Your task to perform on an android device: Search for "razer deathadder" on target, select the first entry, and add it to the cart. Image 0: 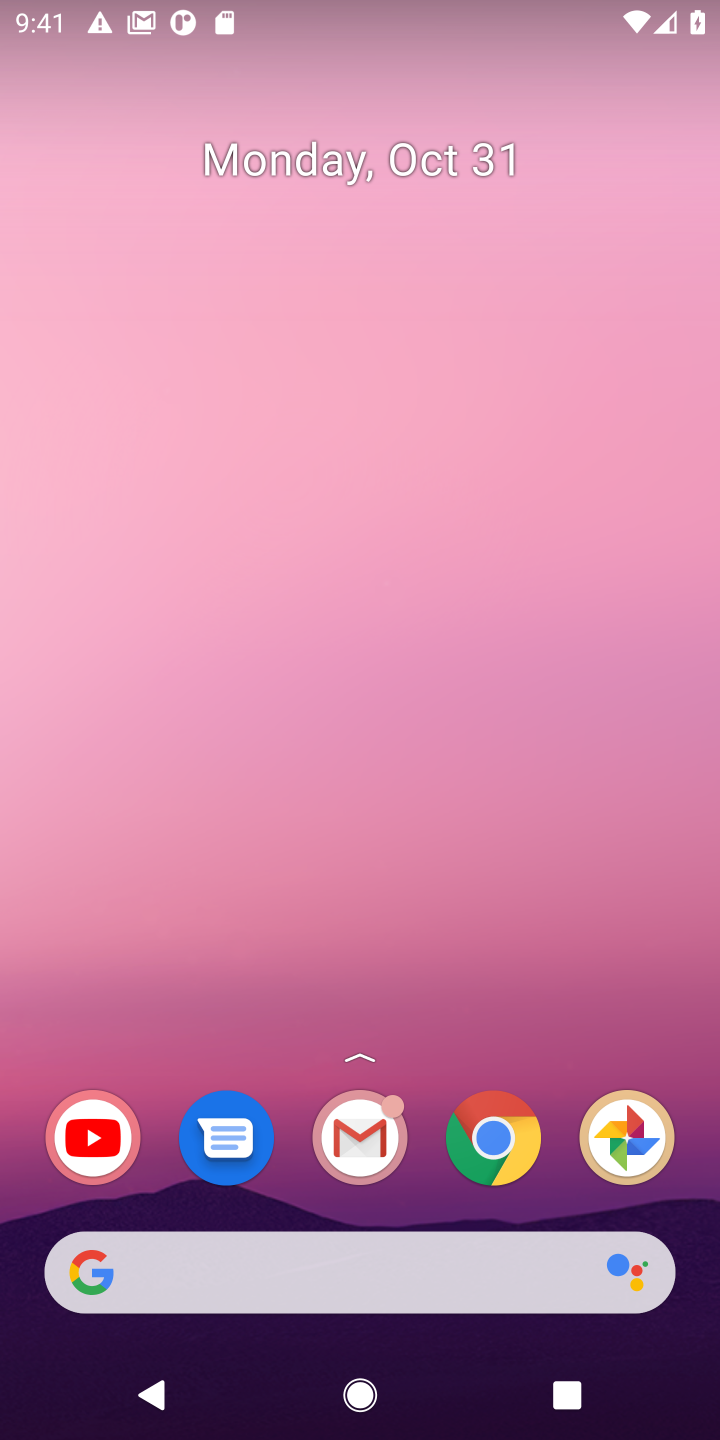
Step 0: drag from (456, 1351) to (346, 189)
Your task to perform on an android device: Search for "razer deathadder" on target, select the first entry, and add it to the cart. Image 1: 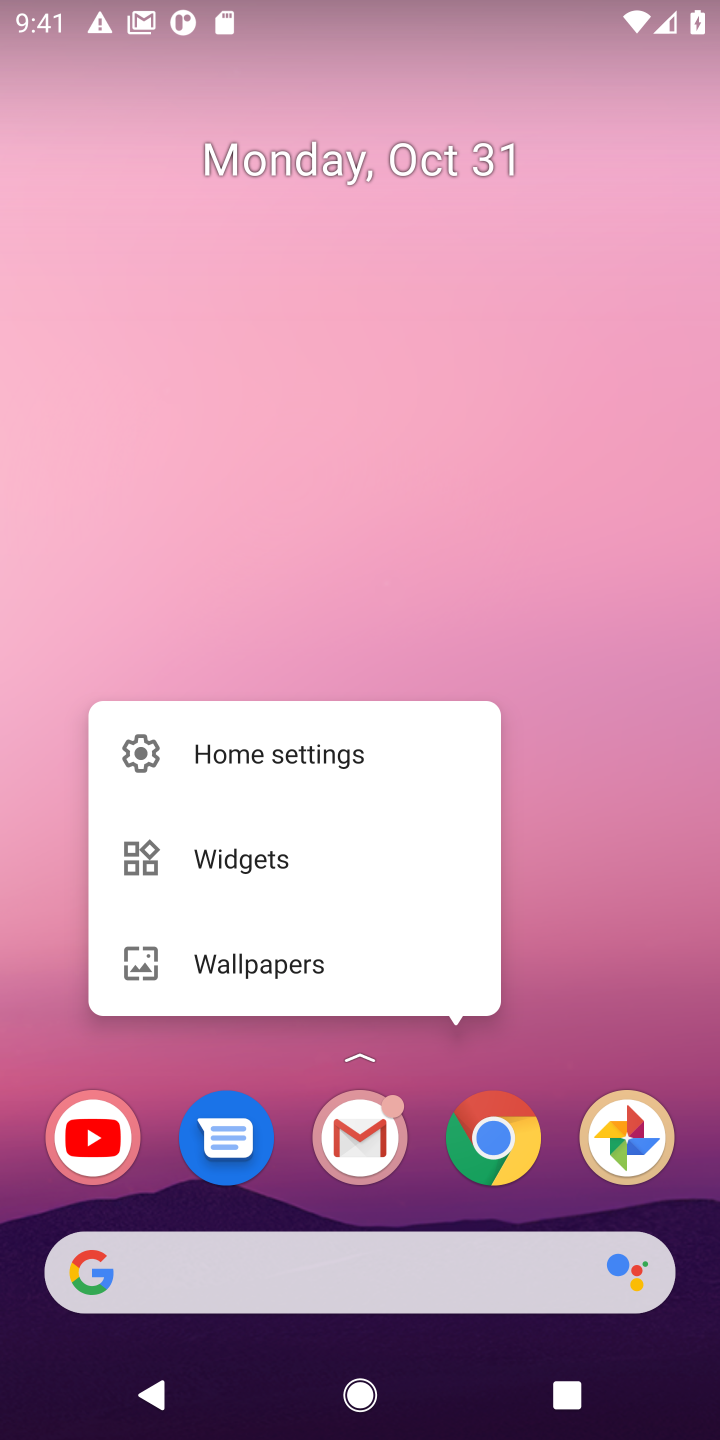
Step 1: click (452, 1347)
Your task to perform on an android device: Search for "razer deathadder" on target, select the first entry, and add it to the cart. Image 2: 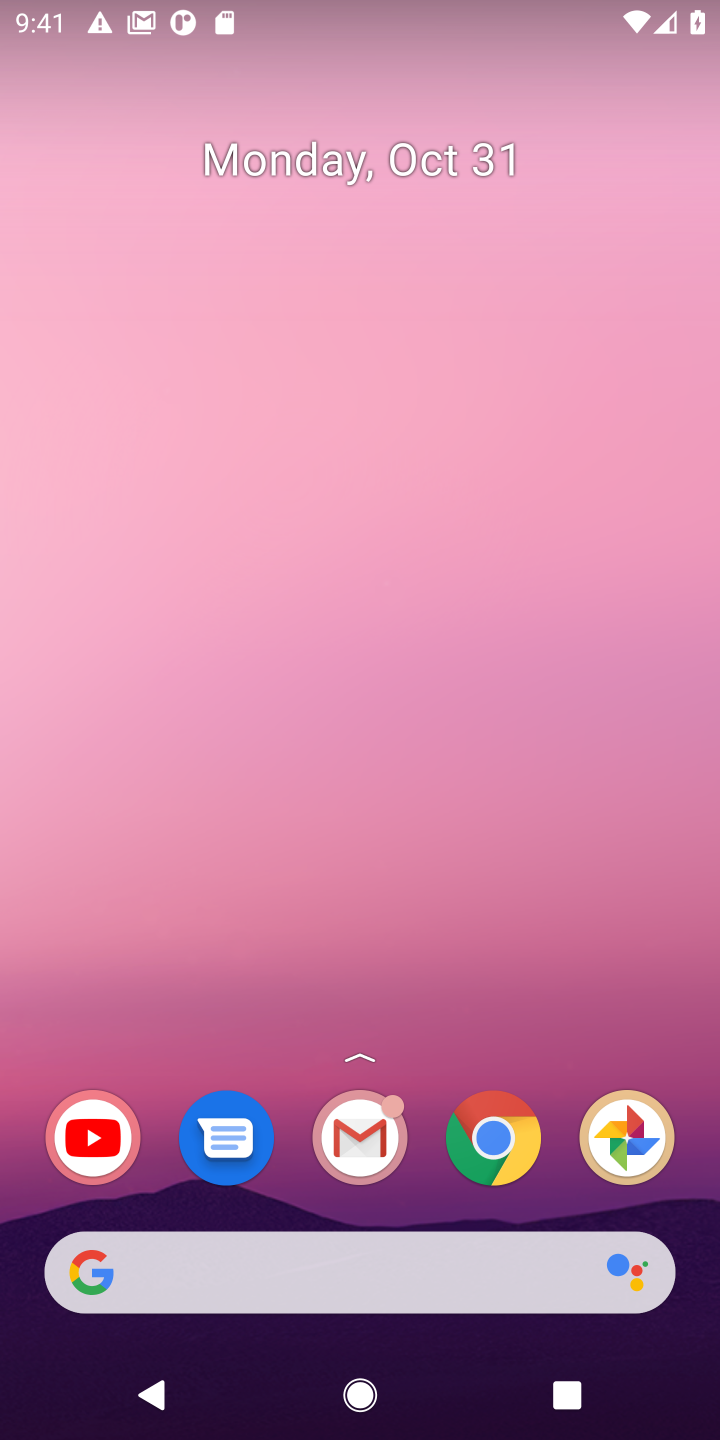
Step 2: drag from (449, 1355) to (607, 208)
Your task to perform on an android device: Search for "razer deathadder" on target, select the first entry, and add it to the cart. Image 3: 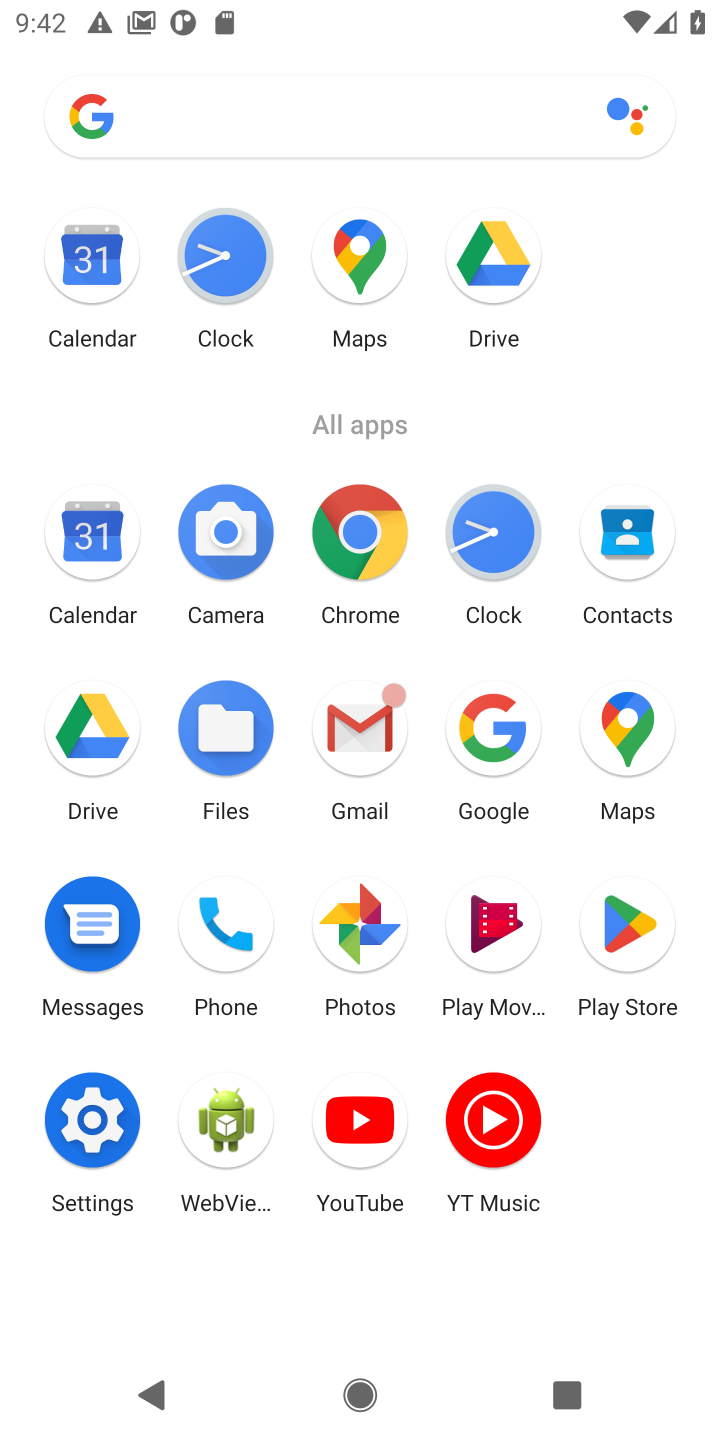
Step 3: click (364, 519)
Your task to perform on an android device: Search for "razer deathadder" on target, select the first entry, and add it to the cart. Image 4: 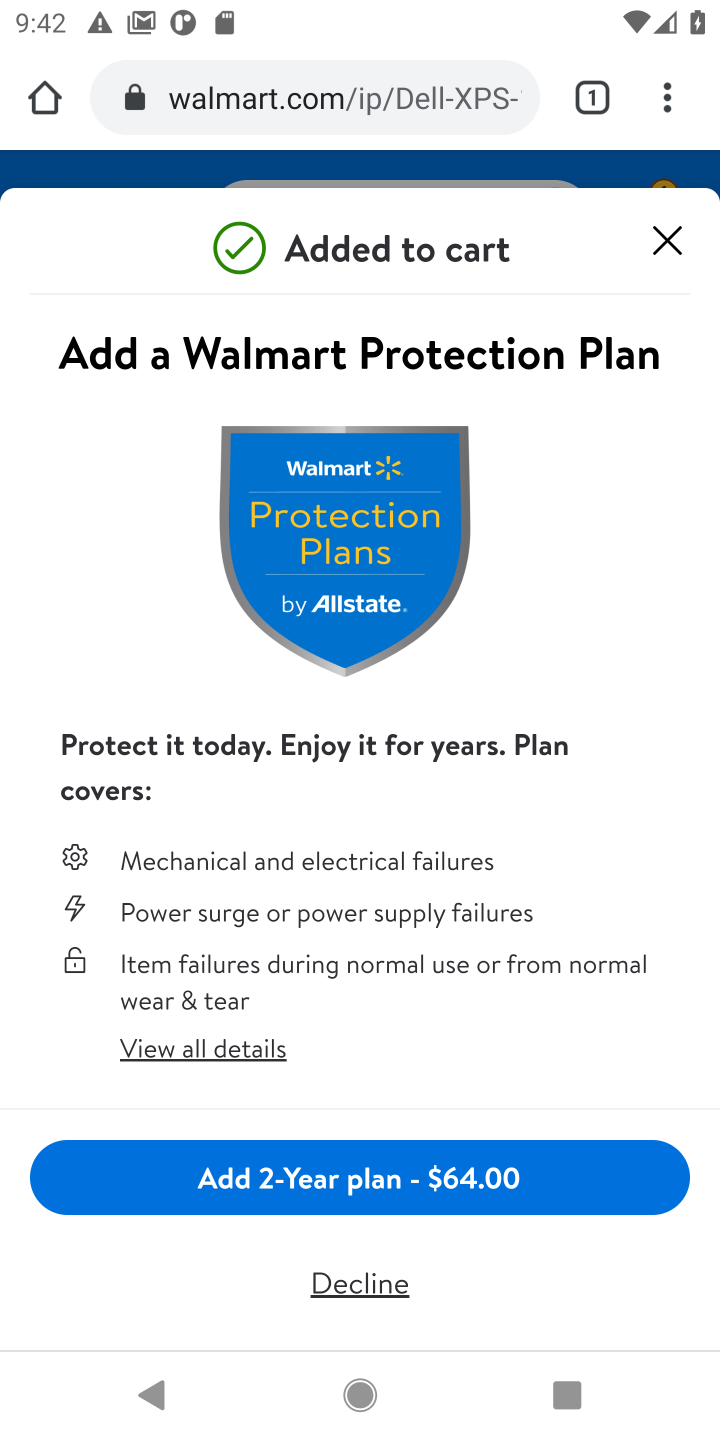
Step 4: click (324, 101)
Your task to perform on an android device: Search for "razer deathadder" on target, select the first entry, and add it to the cart. Image 5: 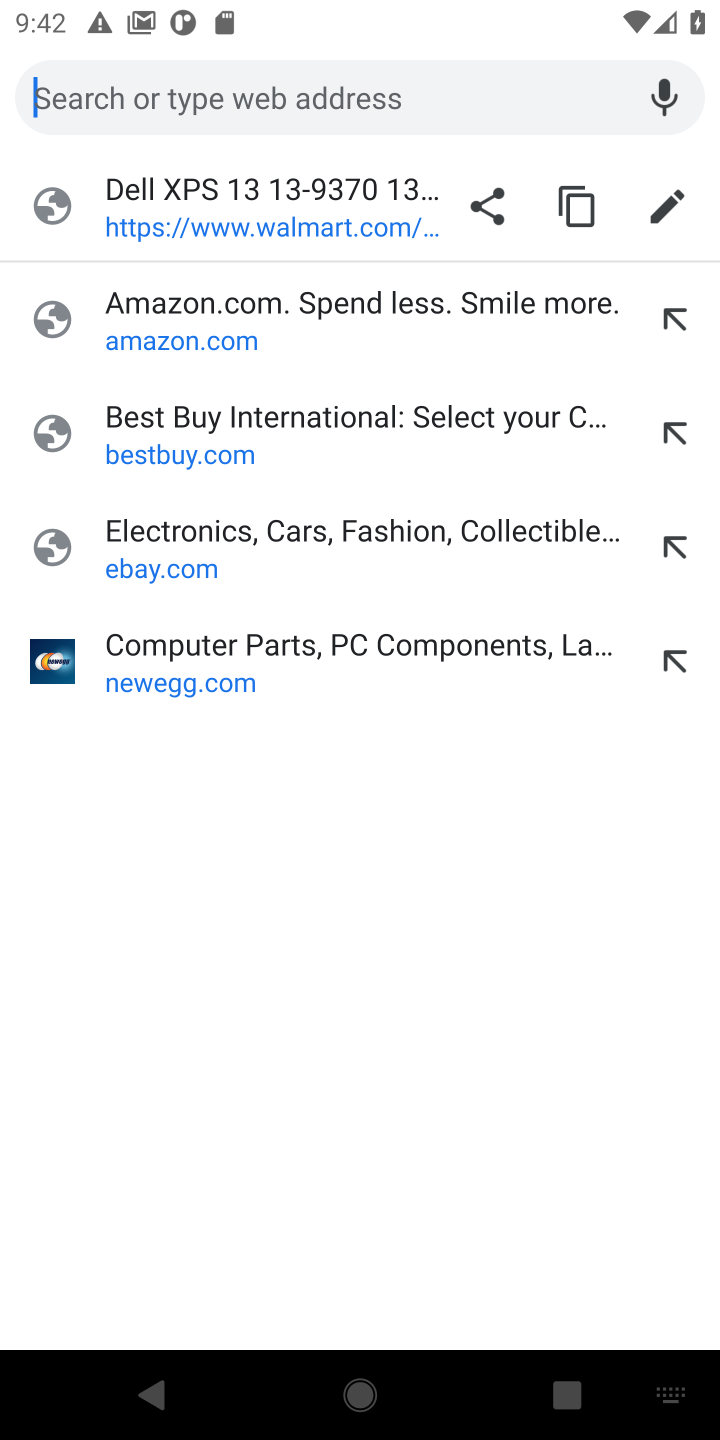
Step 5: type "target"
Your task to perform on an android device: Search for "razer deathadder" on target, select the first entry, and add it to the cart. Image 6: 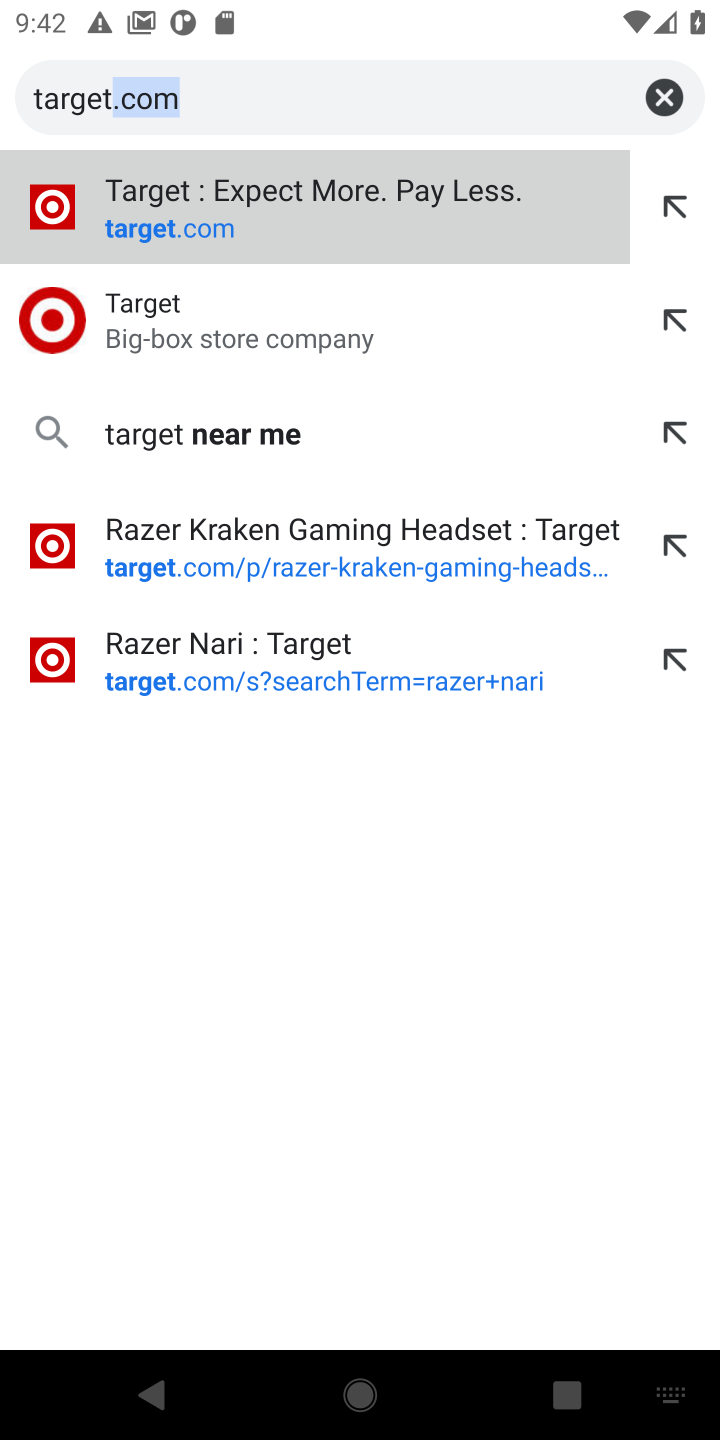
Step 6: click (163, 236)
Your task to perform on an android device: Search for "razer deathadder" on target, select the first entry, and add it to the cart. Image 7: 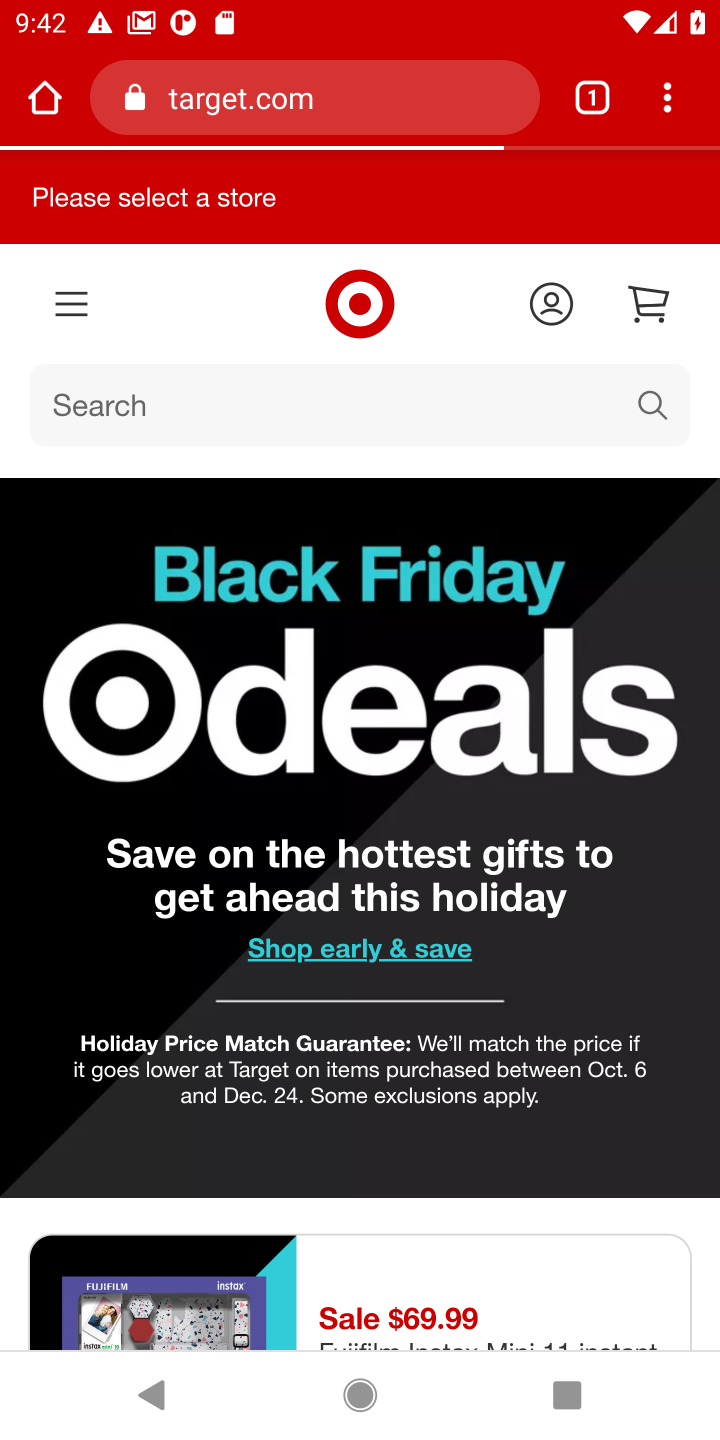
Step 7: click (306, 408)
Your task to perform on an android device: Search for "razer deathadder" on target, select the first entry, and add it to the cart. Image 8: 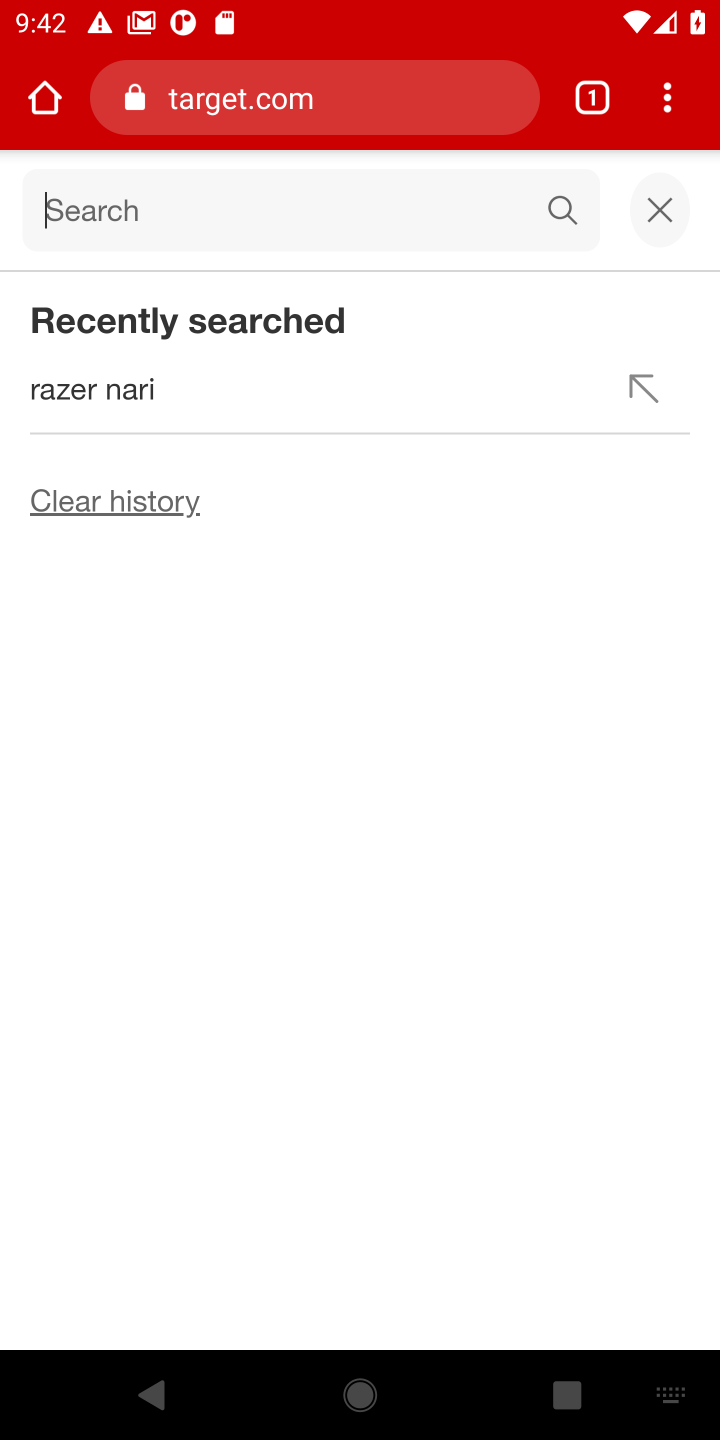
Step 8: type "razer deathadder"
Your task to perform on an android device: Search for "razer deathadder" on target, select the first entry, and add it to the cart. Image 9: 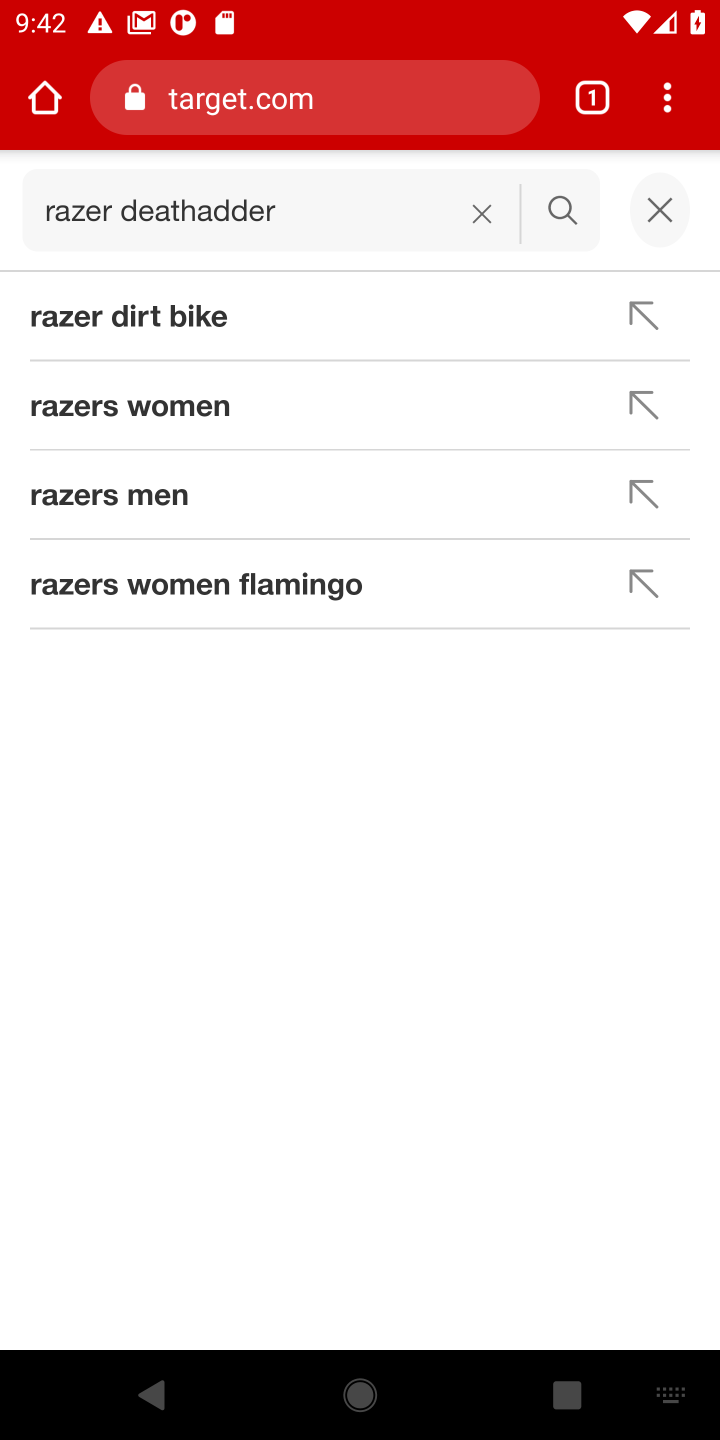
Step 9: click (567, 210)
Your task to perform on an android device: Search for "razer deathadder" on target, select the first entry, and add it to the cart. Image 10: 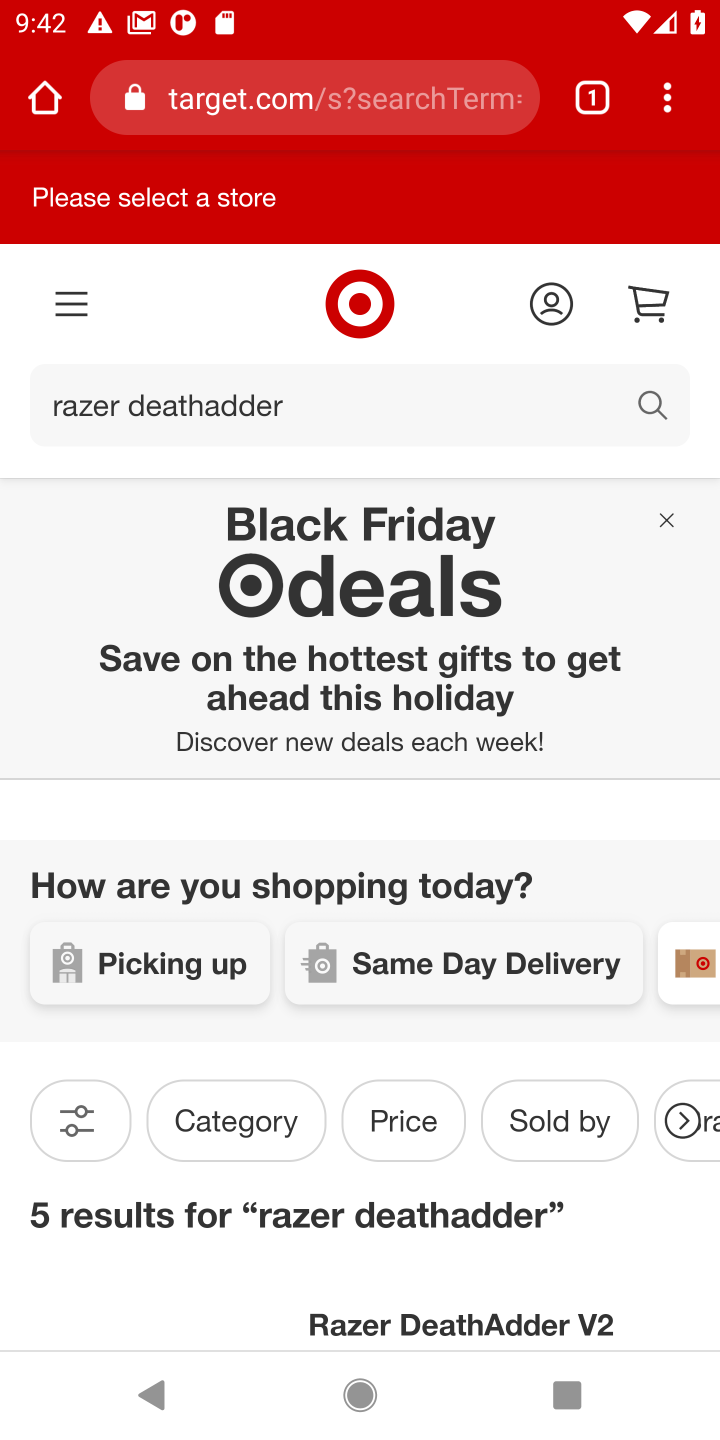
Step 10: drag from (398, 1160) to (423, 357)
Your task to perform on an android device: Search for "razer deathadder" on target, select the first entry, and add it to the cart. Image 11: 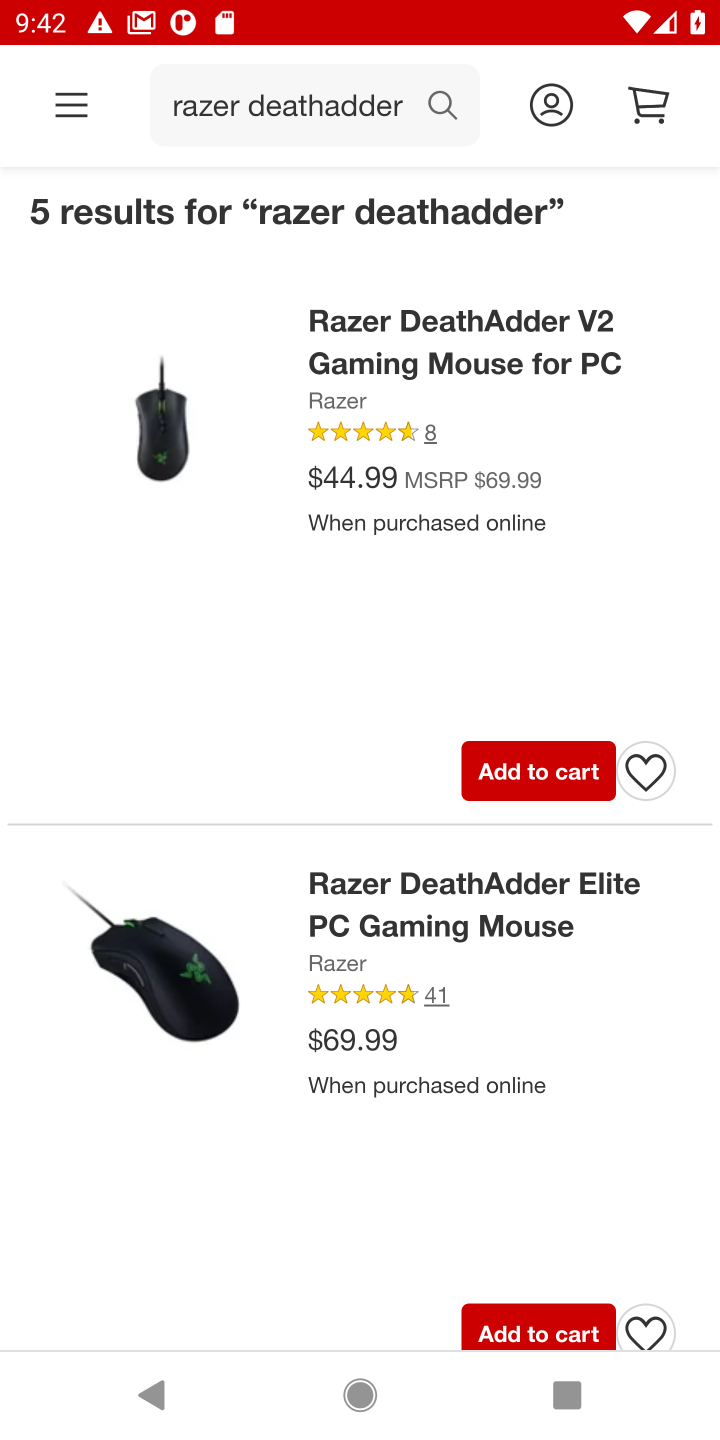
Step 11: click (295, 430)
Your task to perform on an android device: Search for "razer deathadder" on target, select the first entry, and add it to the cart. Image 12: 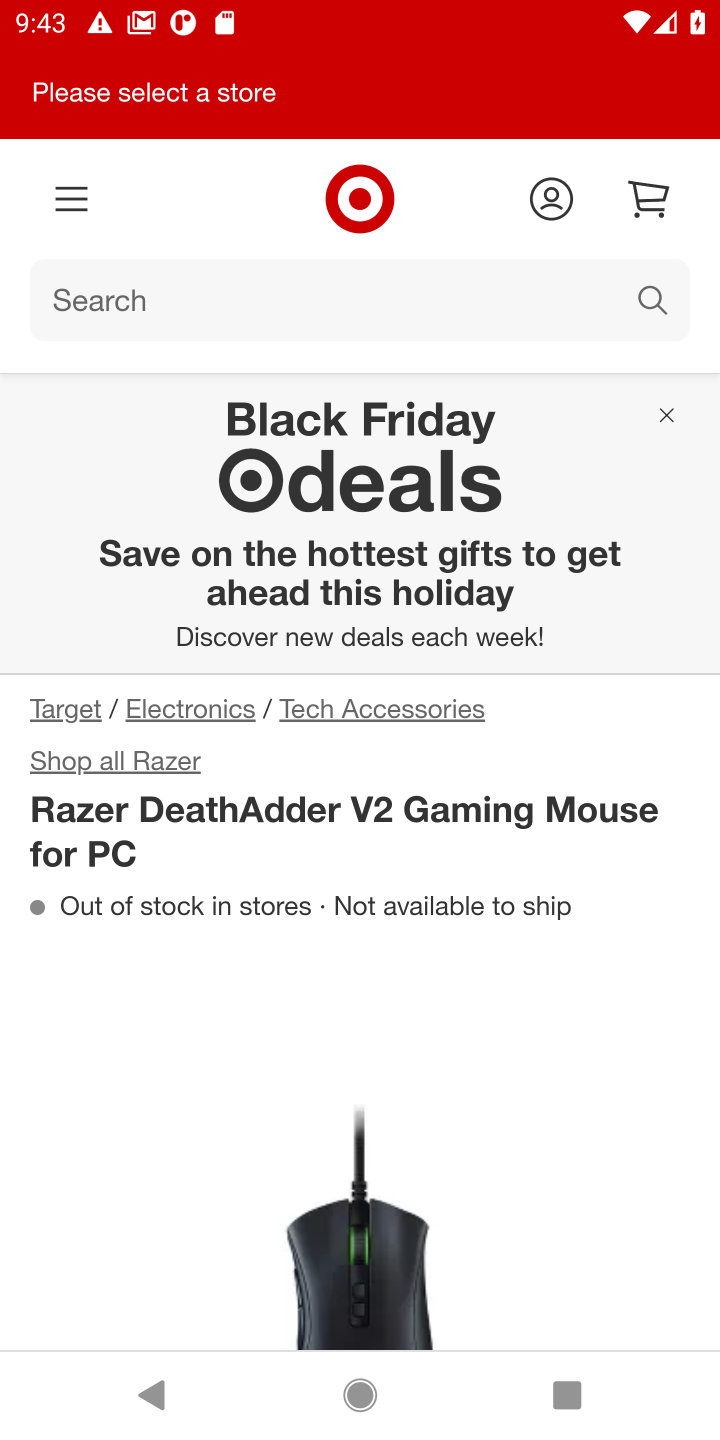
Step 12: drag from (478, 1030) to (506, 253)
Your task to perform on an android device: Search for "razer deathadder" on target, select the first entry, and add it to the cart. Image 13: 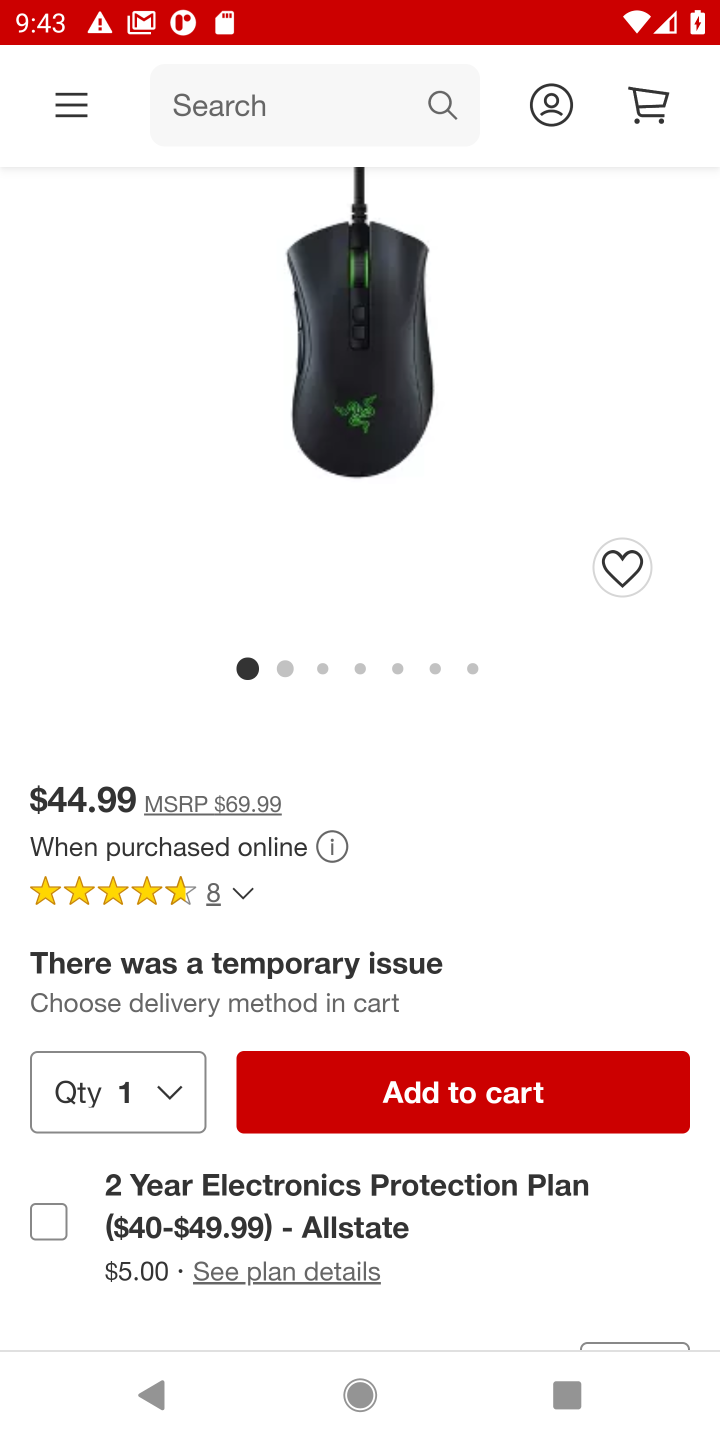
Step 13: click (466, 1076)
Your task to perform on an android device: Search for "razer deathadder" on target, select the first entry, and add it to the cart. Image 14: 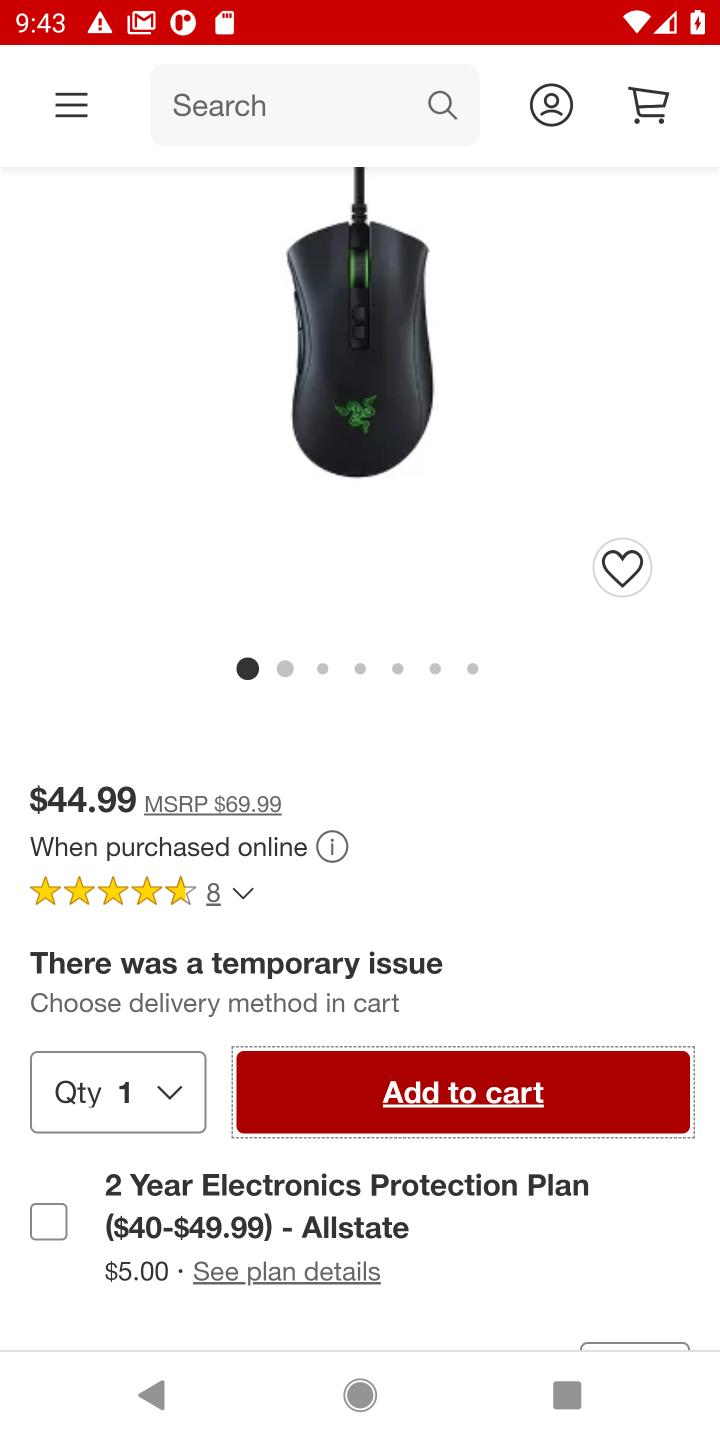
Step 14: click (476, 1098)
Your task to perform on an android device: Search for "razer deathadder" on target, select the first entry, and add it to the cart. Image 15: 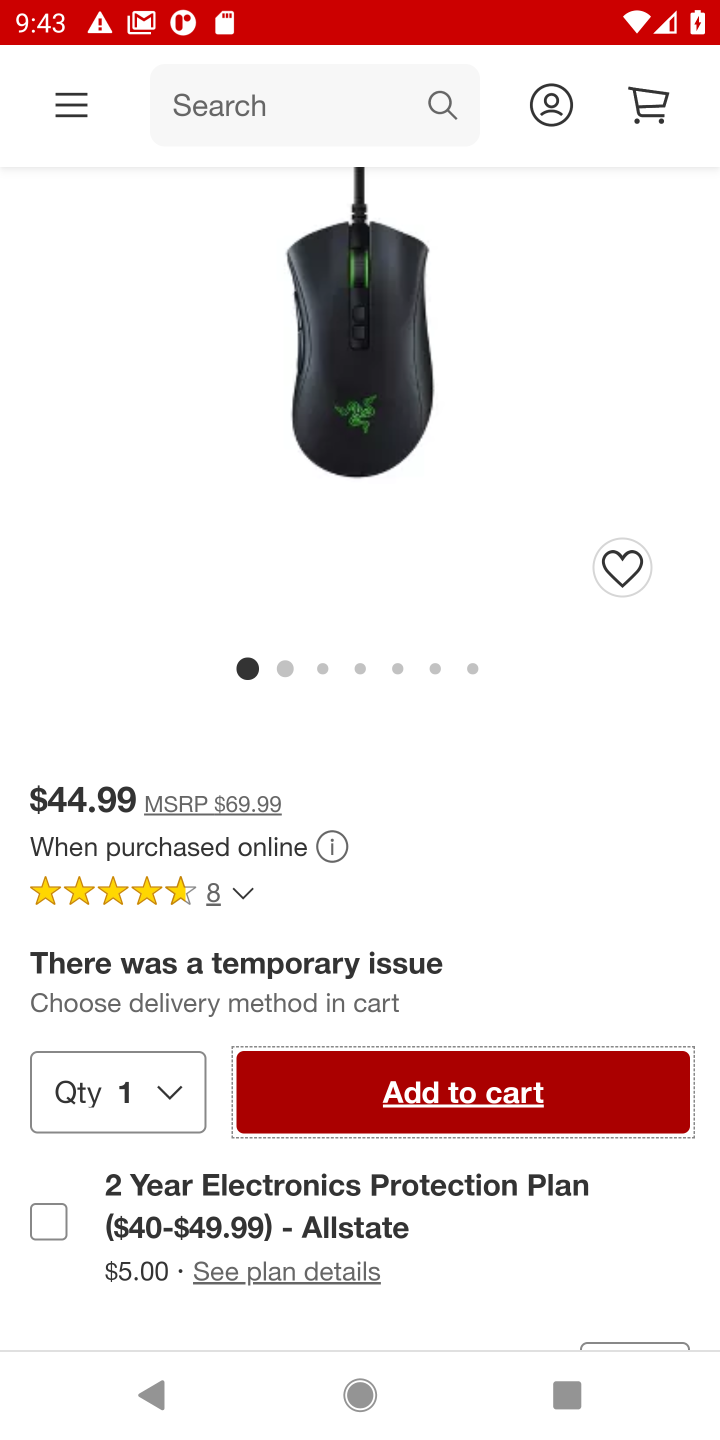
Step 15: click (461, 1097)
Your task to perform on an android device: Search for "razer deathadder" on target, select the first entry, and add it to the cart. Image 16: 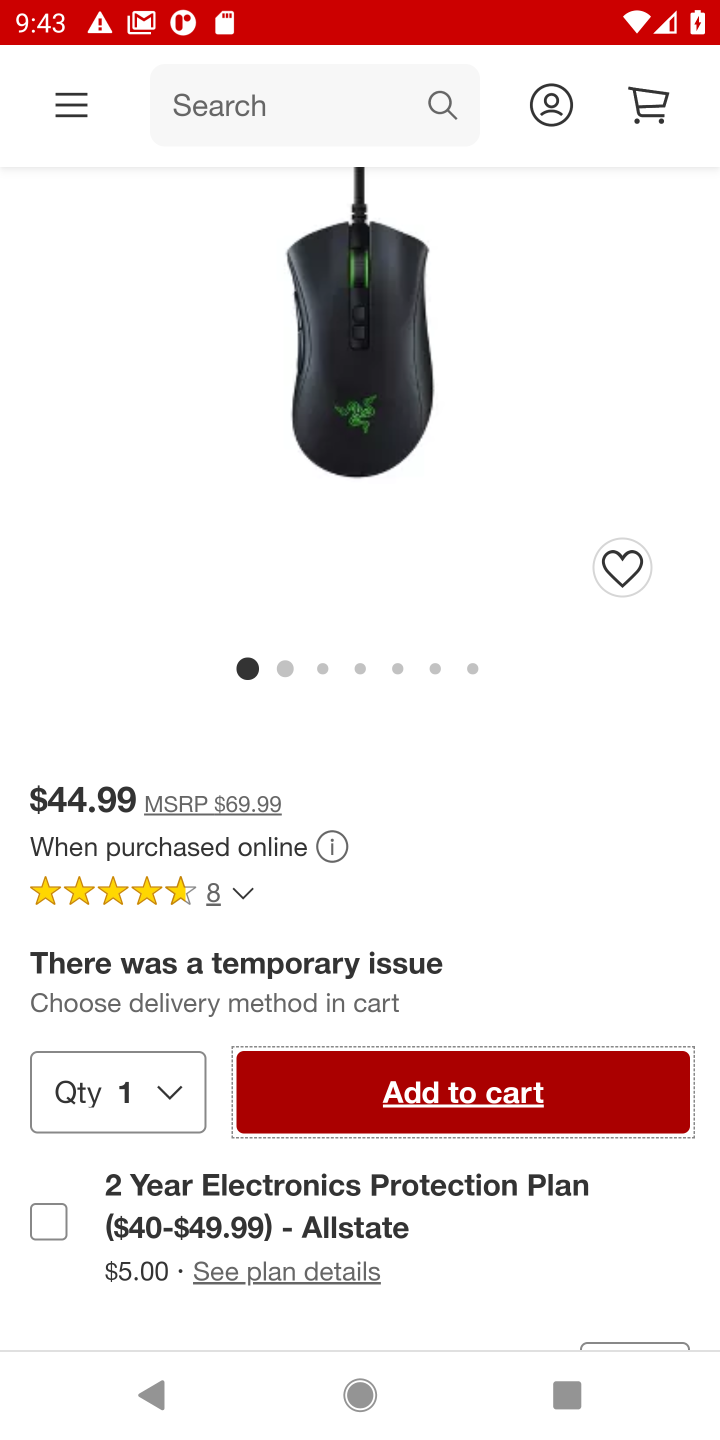
Step 16: task complete